Your task to perform on an android device: open wifi settings Image 0: 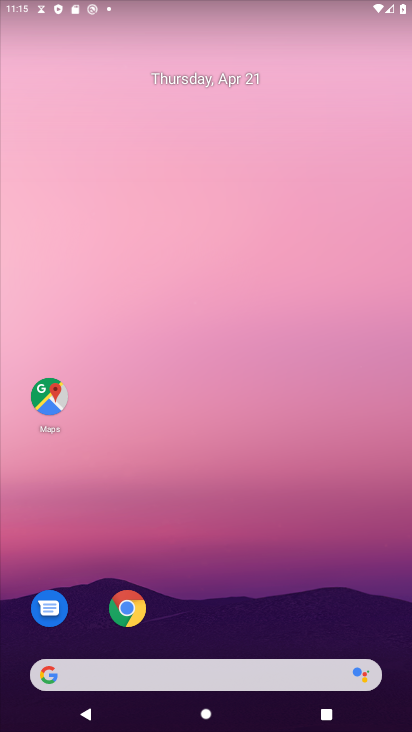
Step 0: drag from (214, 578) to (80, 69)
Your task to perform on an android device: open wifi settings Image 1: 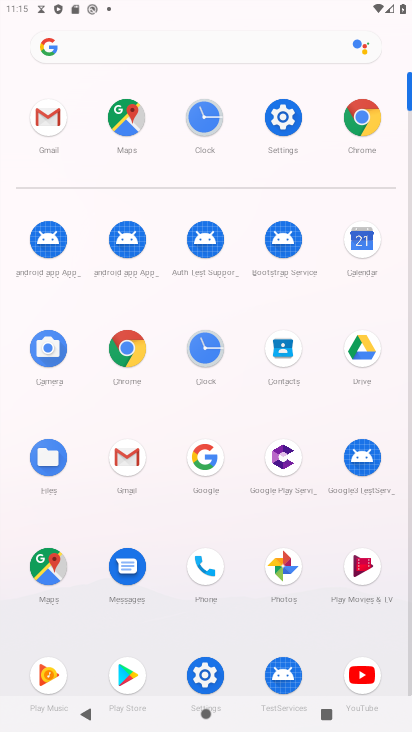
Step 1: click (291, 122)
Your task to perform on an android device: open wifi settings Image 2: 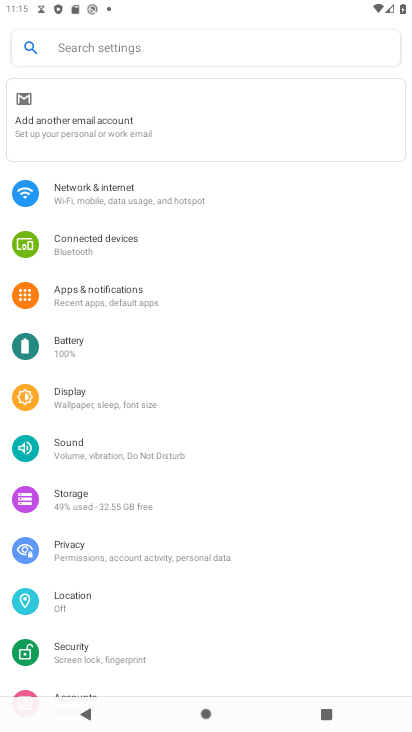
Step 2: click (106, 195)
Your task to perform on an android device: open wifi settings Image 3: 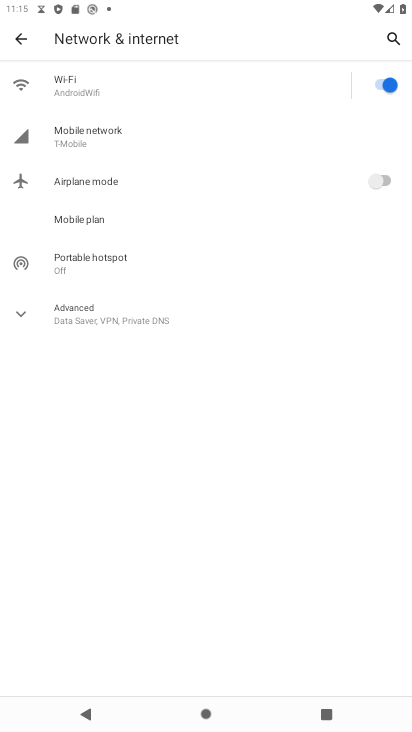
Step 3: click (93, 93)
Your task to perform on an android device: open wifi settings Image 4: 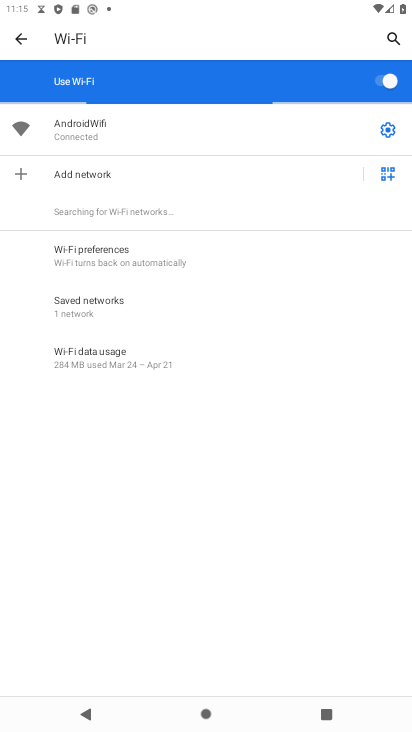
Step 4: task complete